Your task to perform on an android device: turn notification dots off Image 0: 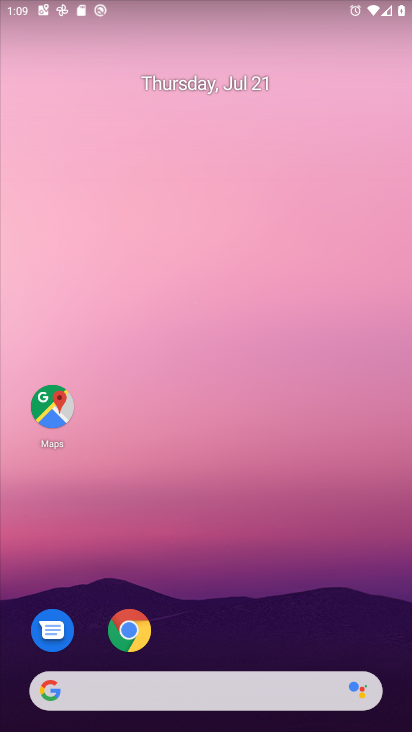
Step 0: drag from (190, 638) to (250, 128)
Your task to perform on an android device: turn notification dots off Image 1: 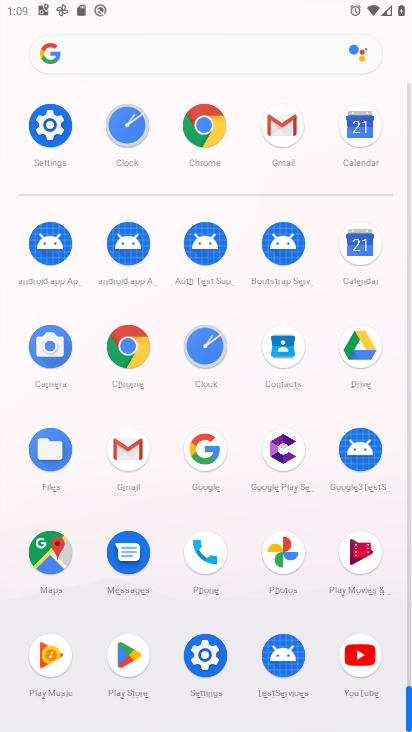
Step 1: click (209, 646)
Your task to perform on an android device: turn notification dots off Image 2: 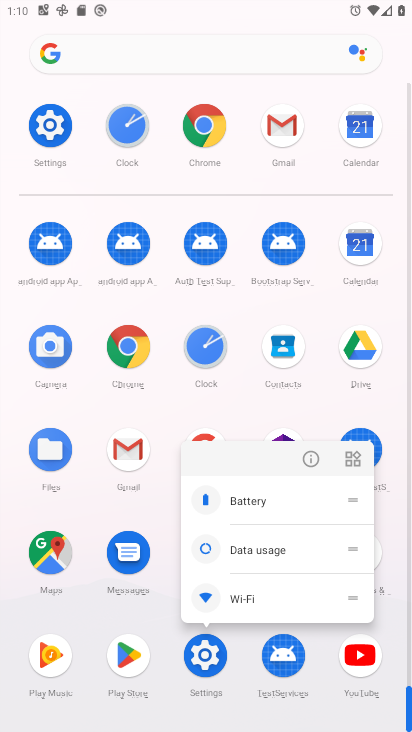
Step 2: click (304, 452)
Your task to perform on an android device: turn notification dots off Image 3: 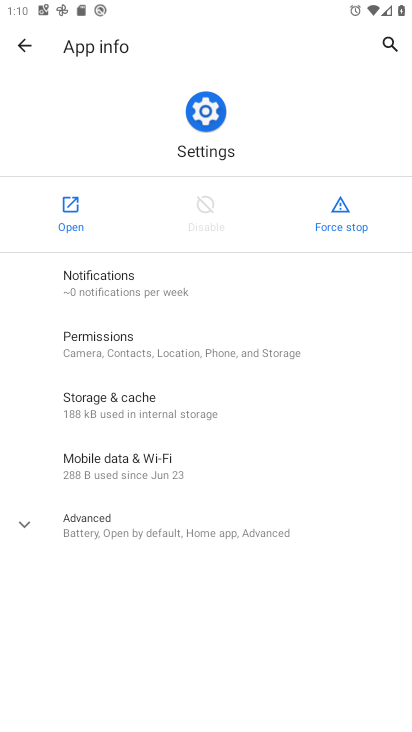
Step 3: click (80, 220)
Your task to perform on an android device: turn notification dots off Image 4: 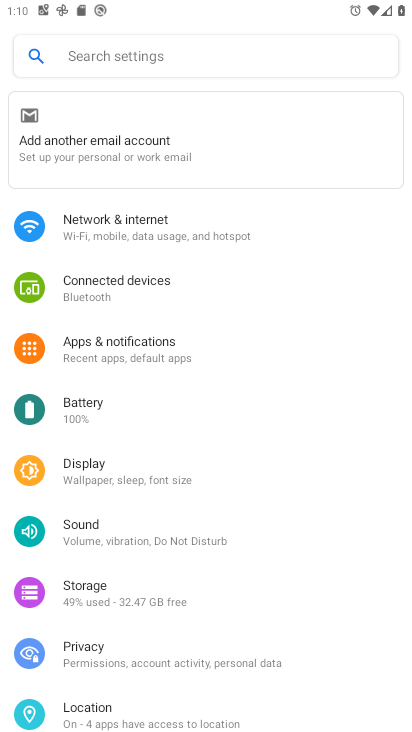
Step 4: click (163, 361)
Your task to perform on an android device: turn notification dots off Image 5: 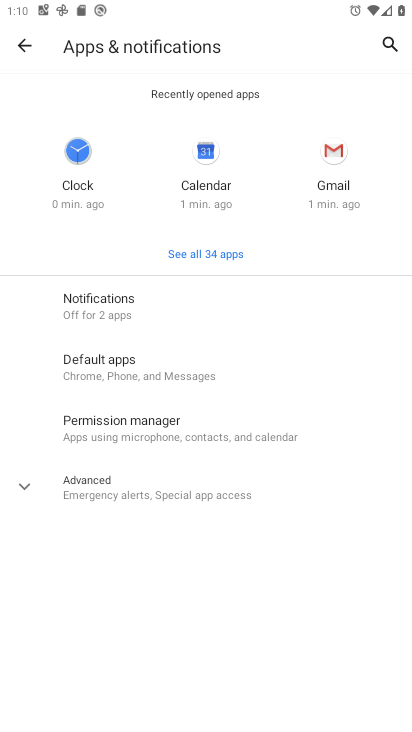
Step 5: click (155, 299)
Your task to perform on an android device: turn notification dots off Image 6: 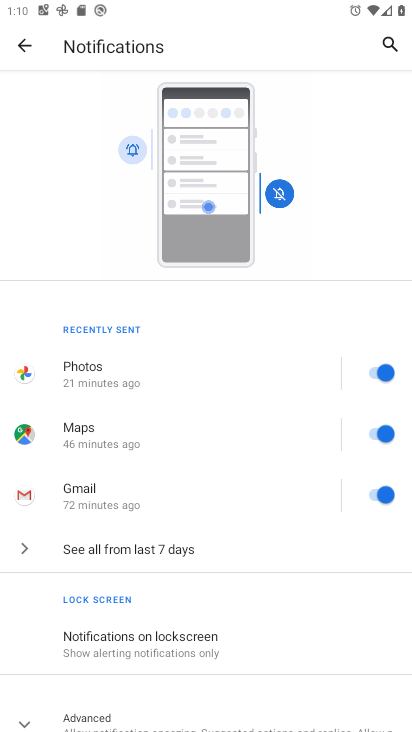
Step 6: drag from (219, 590) to (298, 249)
Your task to perform on an android device: turn notification dots off Image 7: 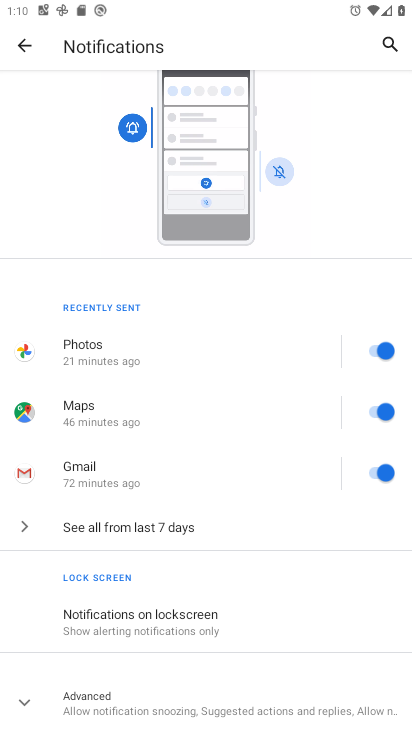
Step 7: click (135, 688)
Your task to perform on an android device: turn notification dots off Image 8: 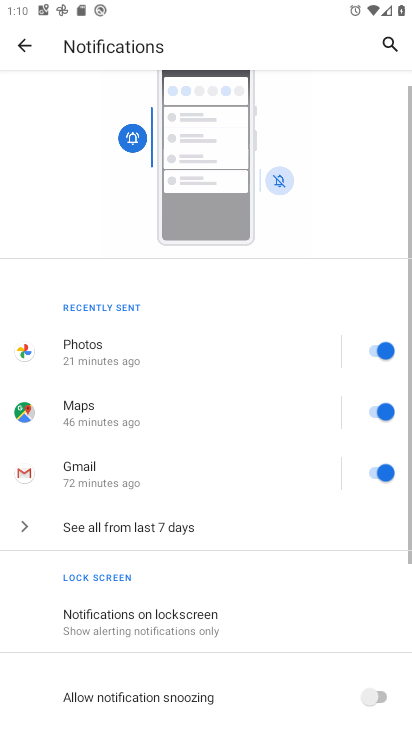
Step 8: drag from (220, 668) to (293, 279)
Your task to perform on an android device: turn notification dots off Image 9: 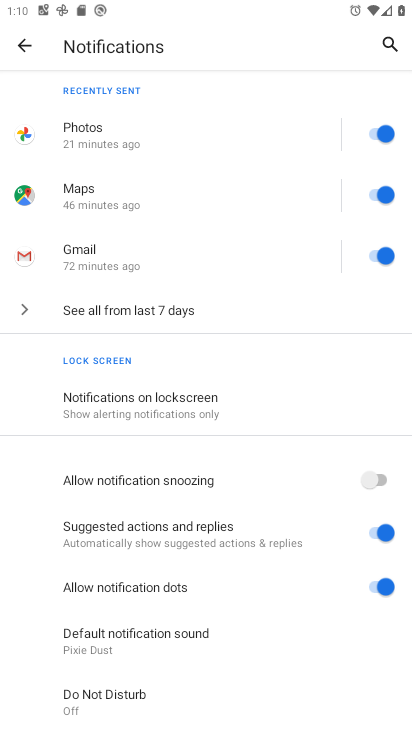
Step 9: click (358, 583)
Your task to perform on an android device: turn notification dots off Image 10: 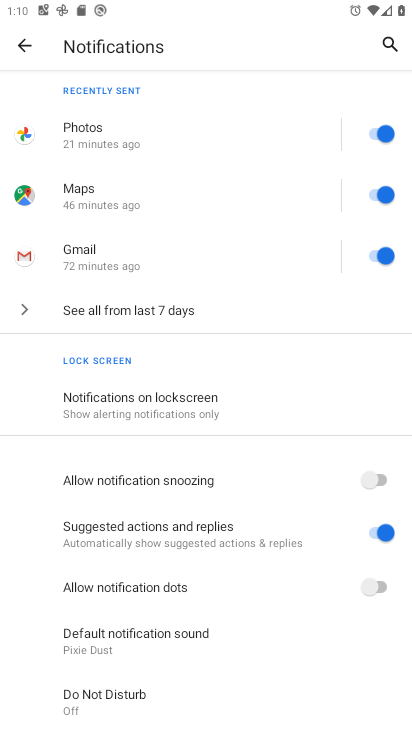
Step 10: task complete